Your task to perform on an android device: Search for panasonic triple a on ebay, select the first entry, add it to the cart, then select checkout. Image 0: 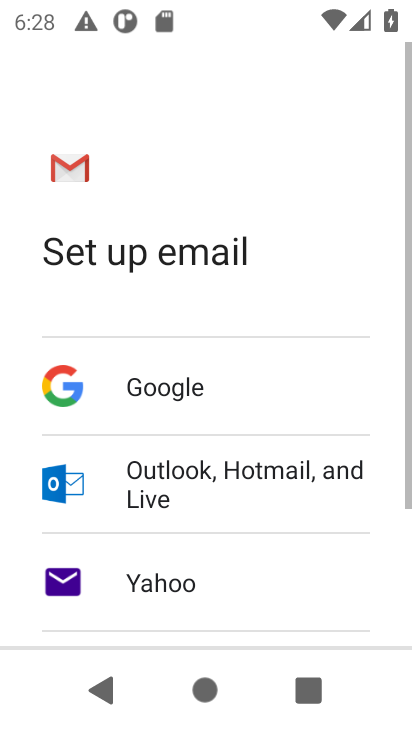
Step 0: press home button
Your task to perform on an android device: Search for panasonic triple a on ebay, select the first entry, add it to the cart, then select checkout. Image 1: 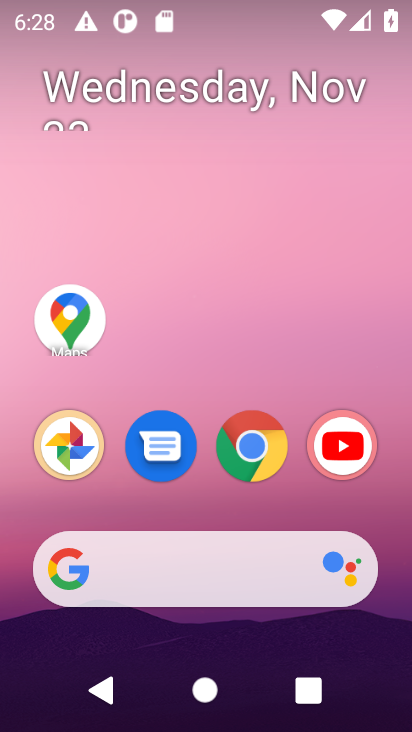
Step 1: click (261, 570)
Your task to perform on an android device: Search for panasonic triple a on ebay, select the first entry, add it to the cart, then select checkout. Image 2: 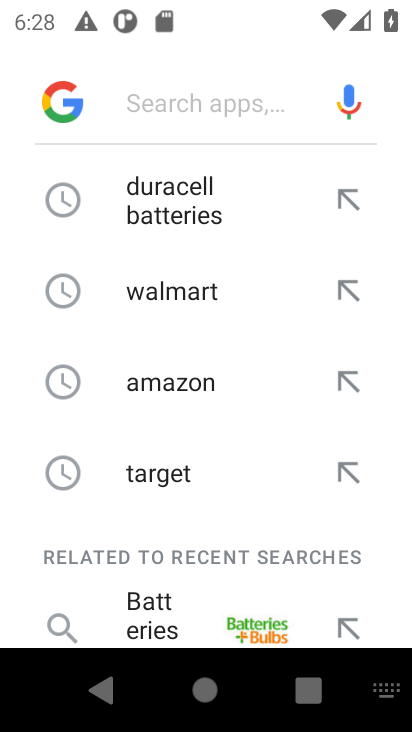
Step 2: type "ebay.com"
Your task to perform on an android device: Search for panasonic triple a on ebay, select the first entry, add it to the cart, then select checkout. Image 3: 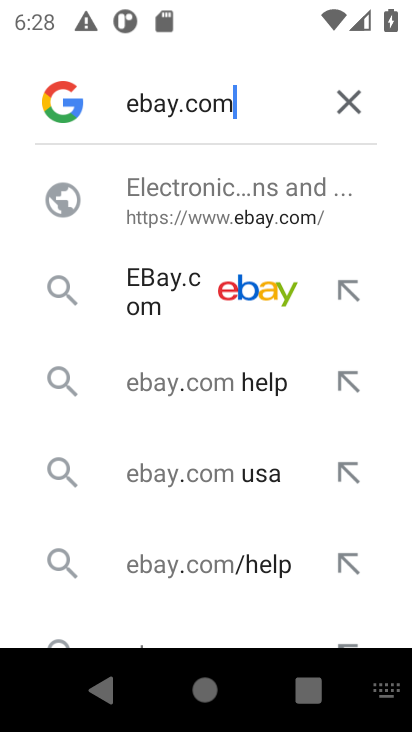
Step 3: click (188, 301)
Your task to perform on an android device: Search for panasonic triple a on ebay, select the first entry, add it to the cart, then select checkout. Image 4: 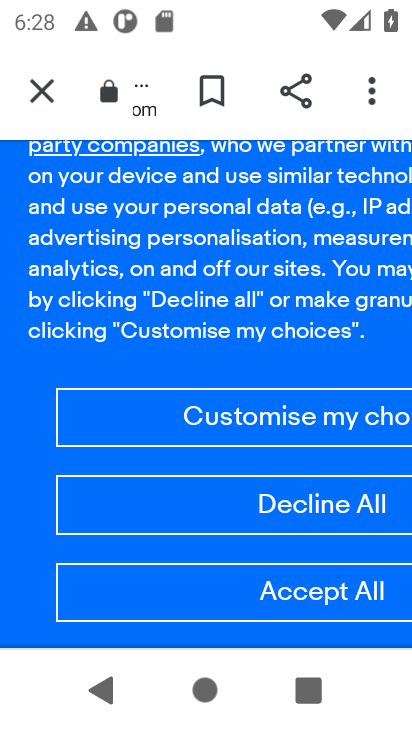
Step 4: click (317, 606)
Your task to perform on an android device: Search for panasonic triple a on ebay, select the first entry, add it to the cart, then select checkout. Image 5: 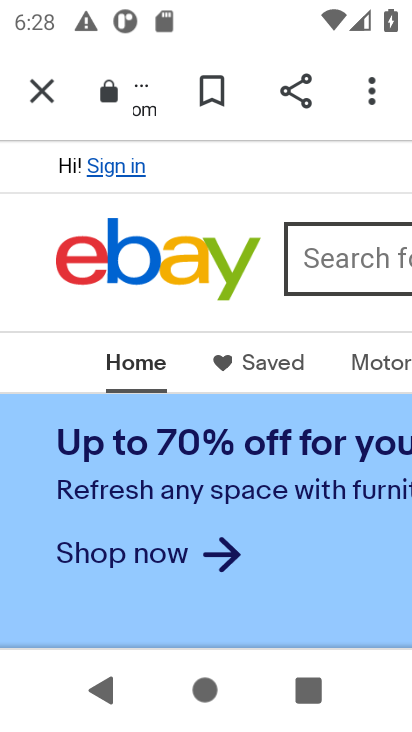
Step 5: click (342, 264)
Your task to perform on an android device: Search for panasonic triple a on ebay, select the first entry, add it to the cart, then select checkout. Image 6: 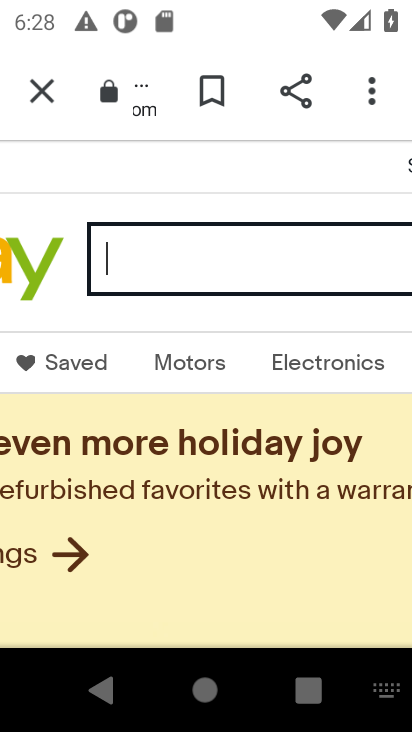
Step 6: type "panasonic triple a"
Your task to perform on an android device: Search for panasonic triple a on ebay, select the first entry, add it to the cart, then select checkout. Image 7: 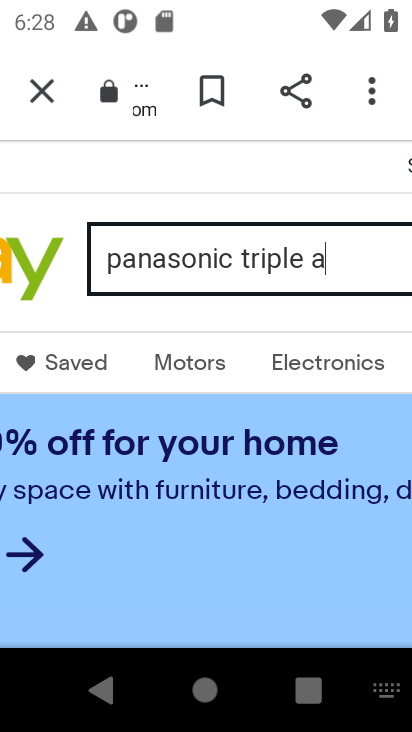
Step 7: drag from (238, 339) to (28, 276)
Your task to perform on an android device: Search for panasonic triple a on ebay, select the first entry, add it to the cart, then select checkout. Image 8: 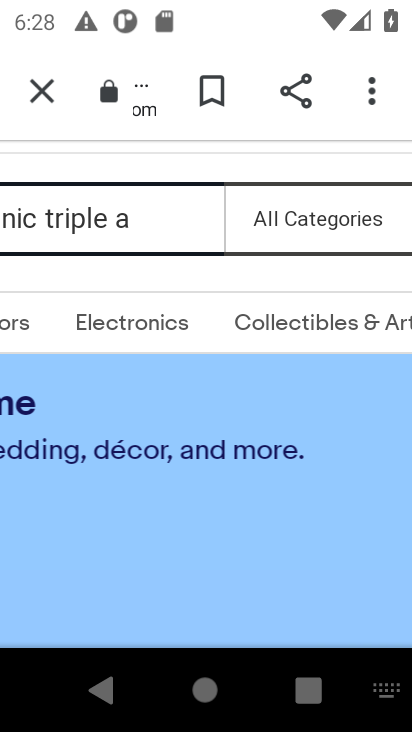
Step 8: drag from (333, 315) to (23, 269)
Your task to perform on an android device: Search for panasonic triple a on ebay, select the first entry, add it to the cart, then select checkout. Image 9: 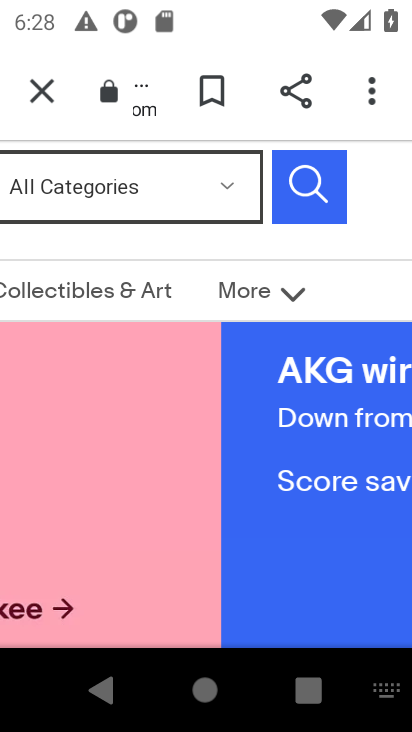
Step 9: click (318, 204)
Your task to perform on an android device: Search for panasonic triple a on ebay, select the first entry, add it to the cart, then select checkout. Image 10: 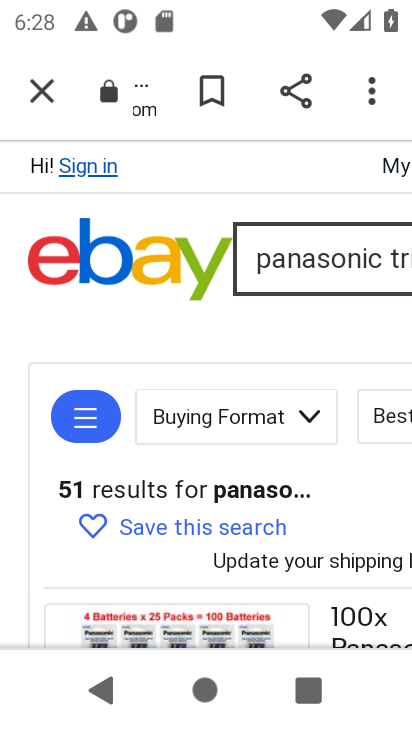
Step 10: drag from (226, 540) to (257, 193)
Your task to perform on an android device: Search for panasonic triple a on ebay, select the first entry, add it to the cart, then select checkout. Image 11: 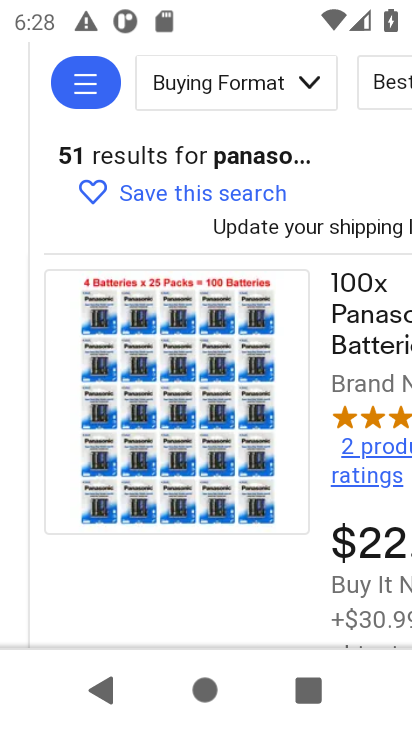
Step 11: click (334, 295)
Your task to perform on an android device: Search for panasonic triple a on ebay, select the first entry, add it to the cart, then select checkout. Image 12: 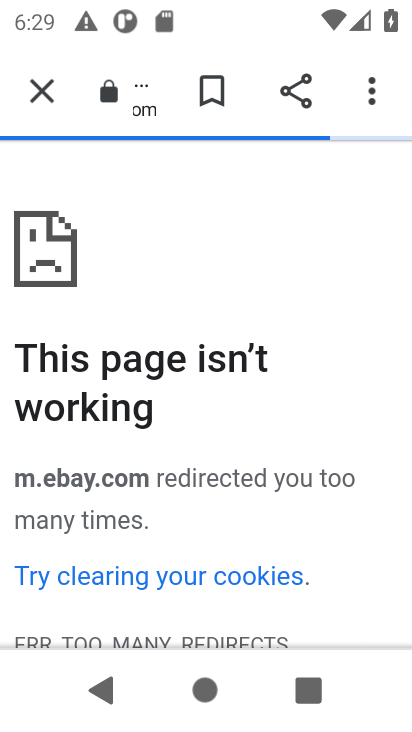
Step 12: task complete